Your task to perform on an android device: uninstall "Flipkart Online Shopping App" Image 0: 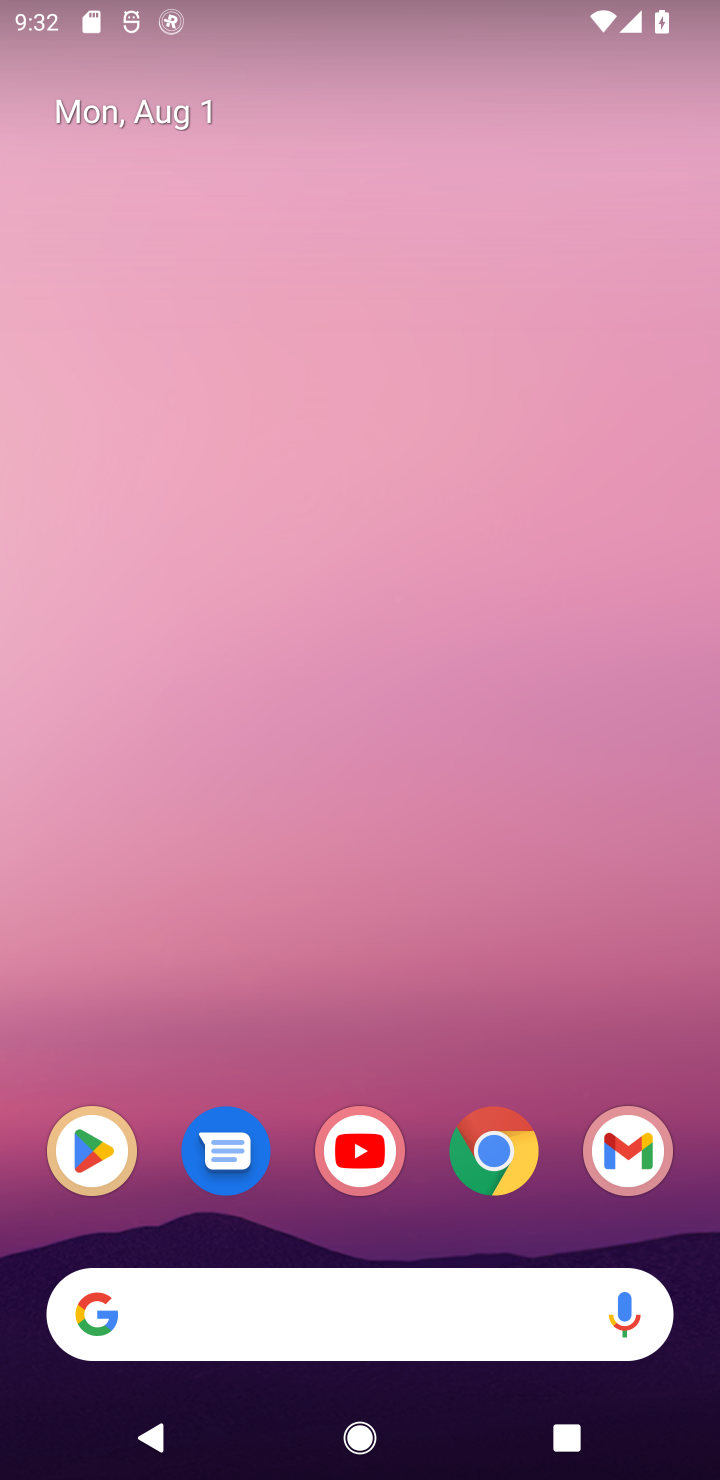
Step 0: click (80, 1117)
Your task to perform on an android device: uninstall "Flipkart Online Shopping App" Image 1: 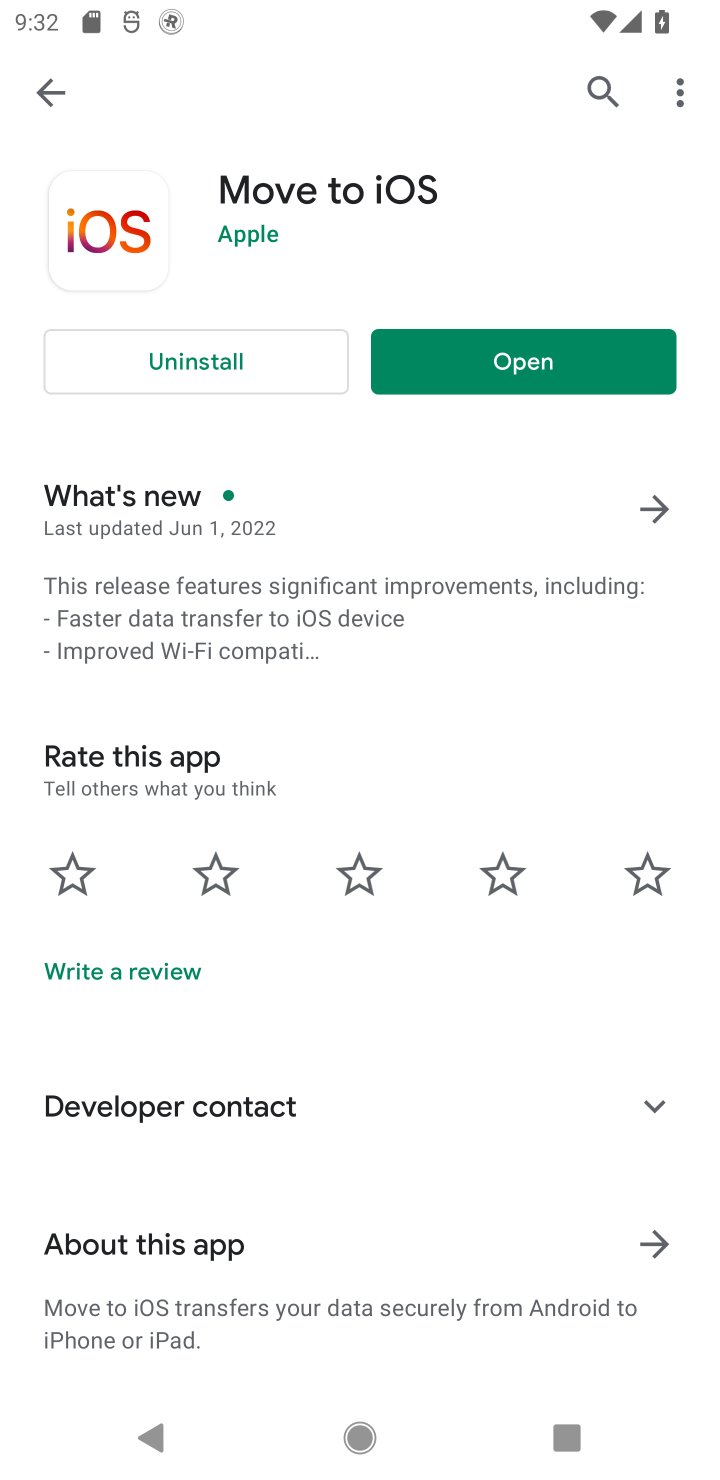
Step 1: click (596, 103)
Your task to perform on an android device: uninstall "Flipkart Online Shopping App" Image 2: 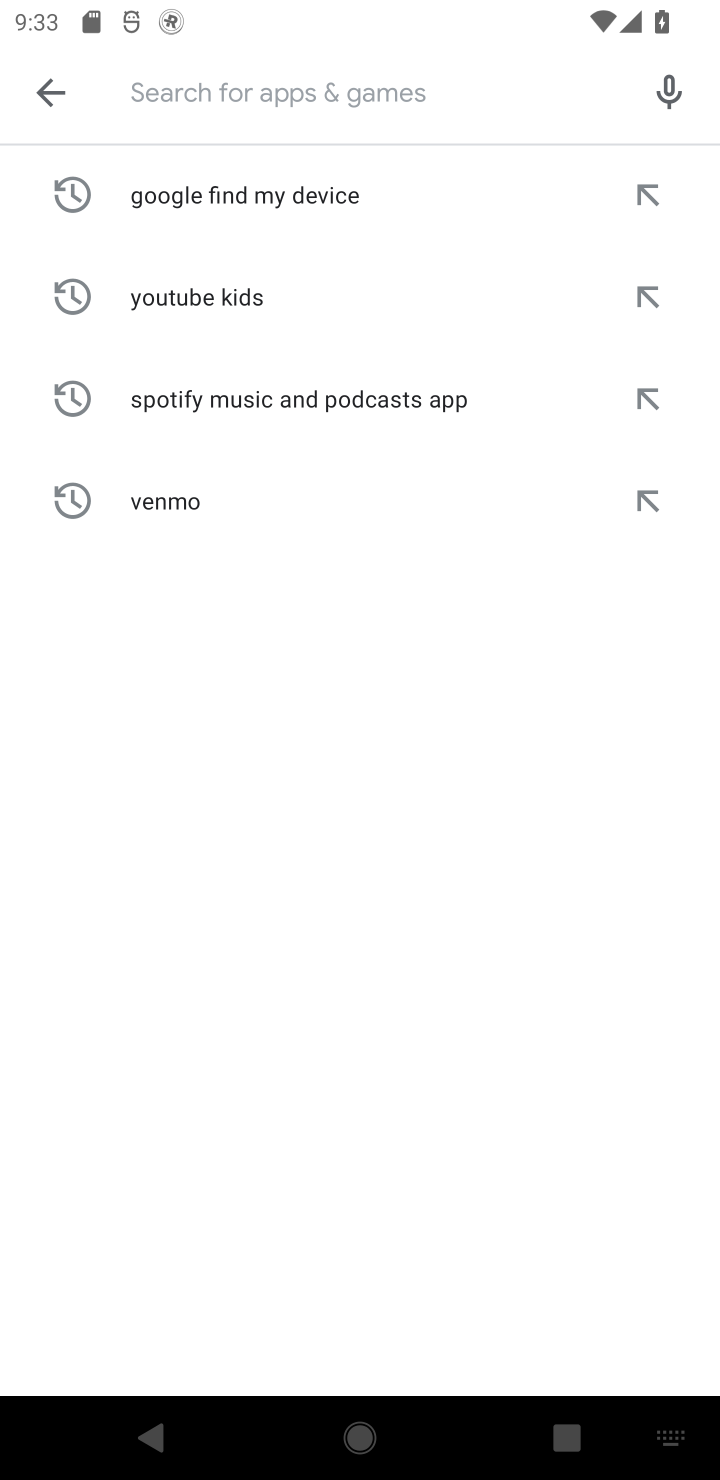
Step 2: type "Flipkart Online Shopping App"
Your task to perform on an android device: uninstall "Flipkart Online Shopping App" Image 3: 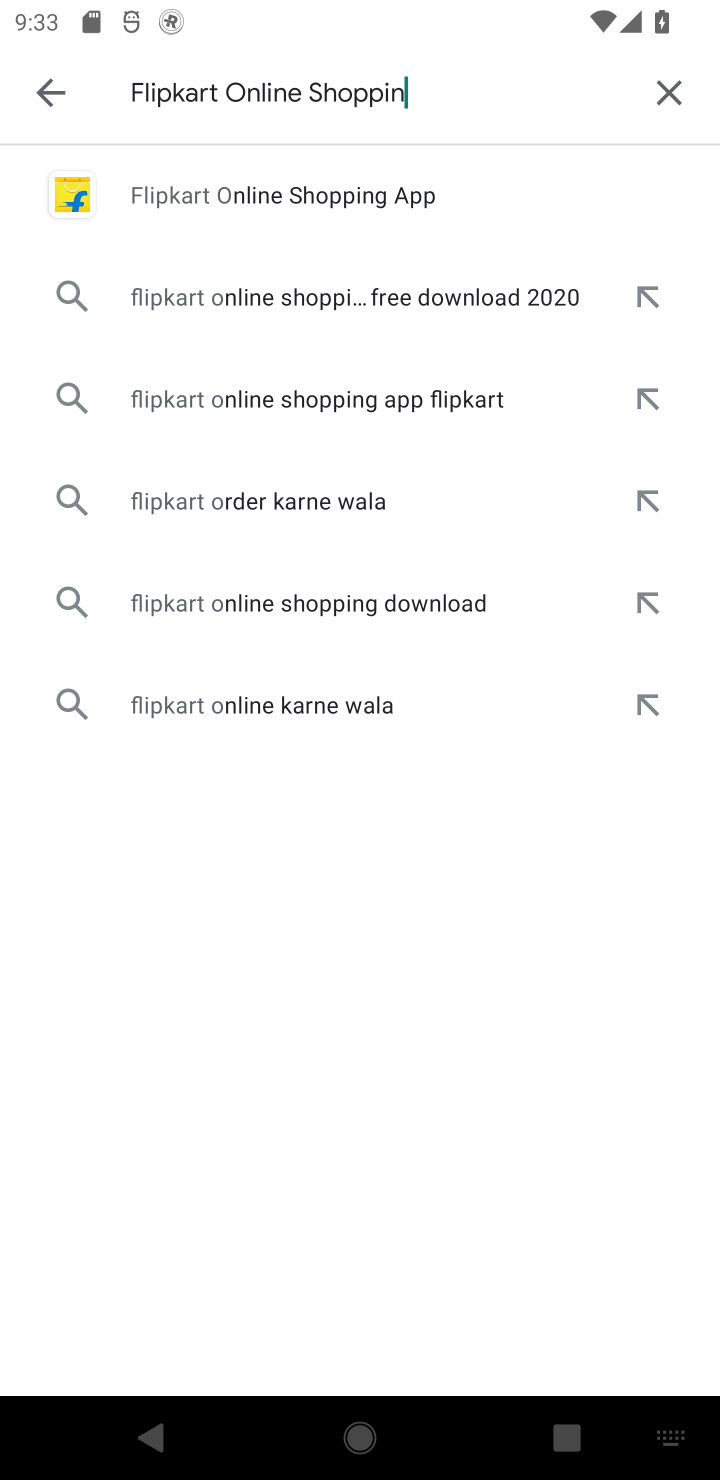
Step 3: type ""
Your task to perform on an android device: uninstall "Flipkart Online Shopping App" Image 4: 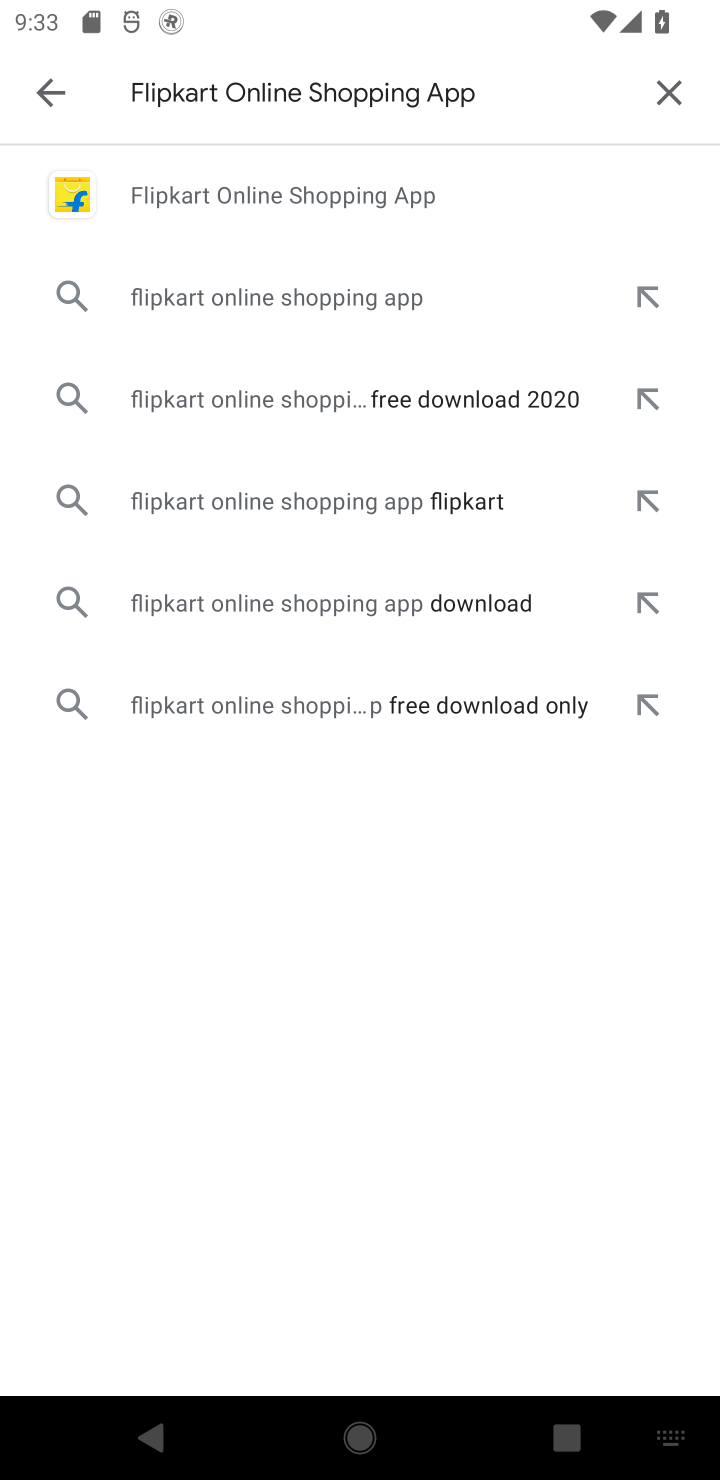
Step 4: click (368, 202)
Your task to perform on an android device: uninstall "Flipkart Online Shopping App" Image 5: 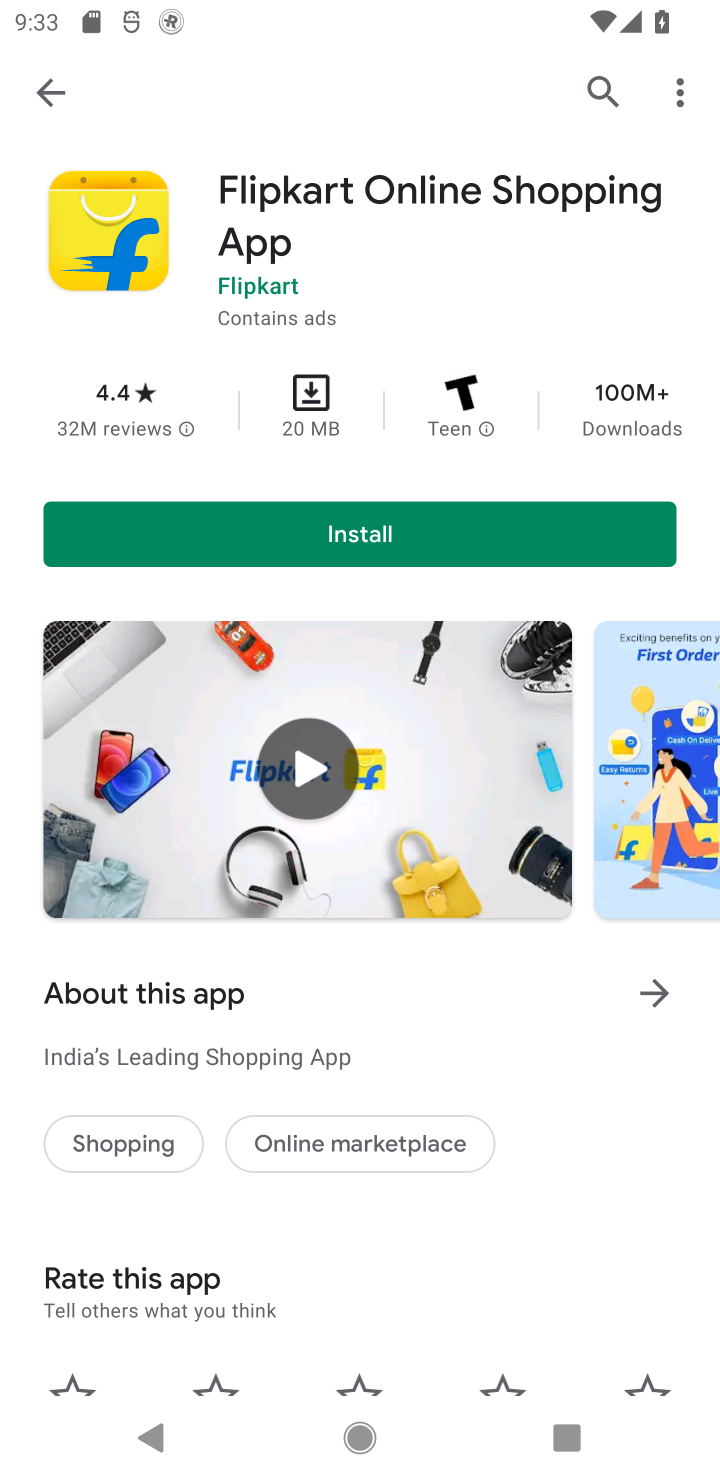
Step 5: task complete